Your task to perform on an android device: Open the web browser Image 0: 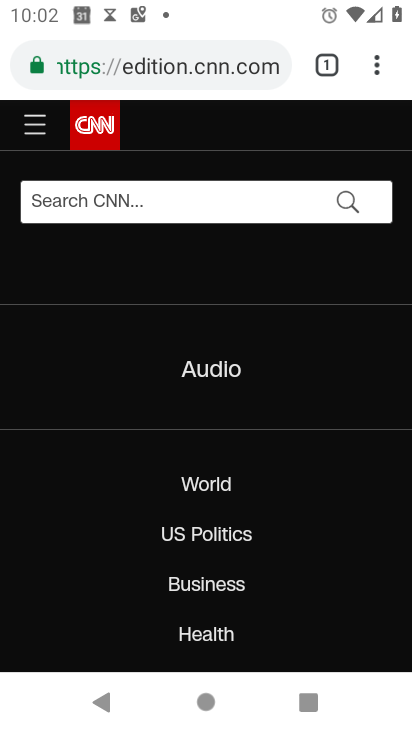
Step 0: press home button
Your task to perform on an android device: Open the web browser Image 1: 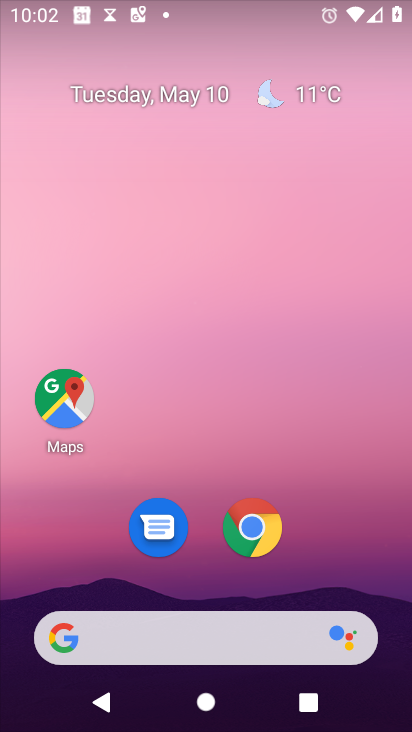
Step 1: click (252, 528)
Your task to perform on an android device: Open the web browser Image 2: 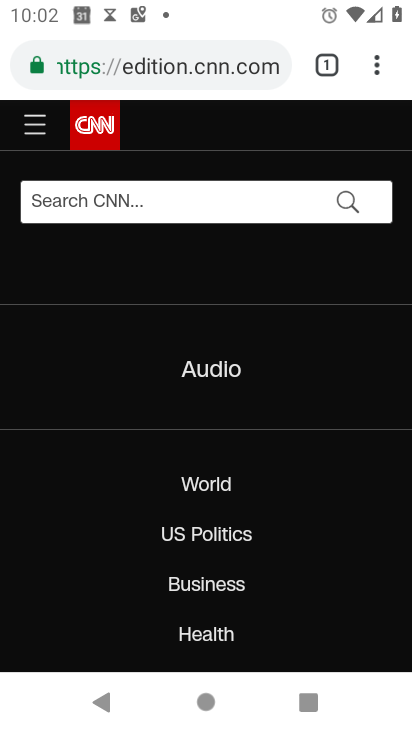
Step 2: task complete